Your task to perform on an android device: Go to Reddit.com Image 0: 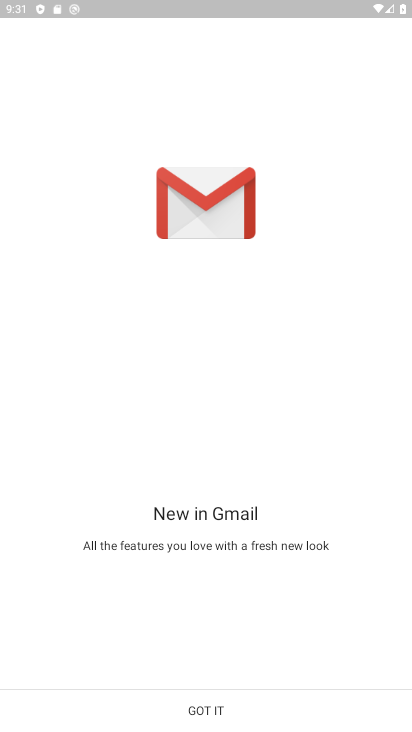
Step 0: press home button
Your task to perform on an android device: Go to Reddit.com Image 1: 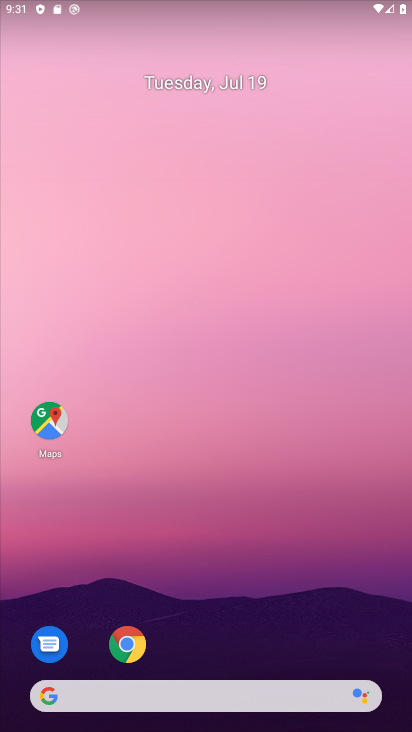
Step 1: click (128, 648)
Your task to perform on an android device: Go to Reddit.com Image 2: 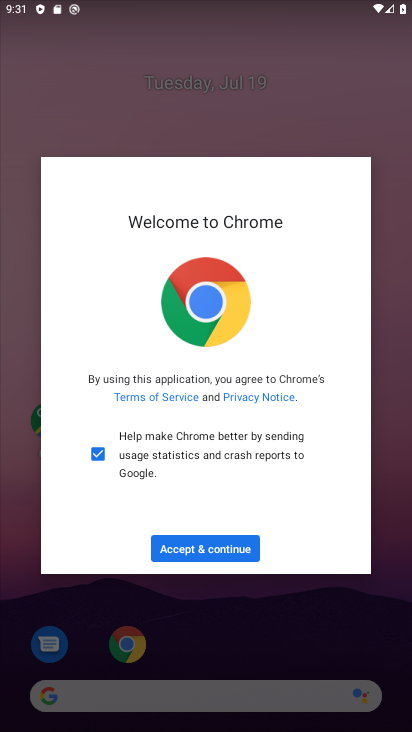
Step 2: click (209, 546)
Your task to perform on an android device: Go to Reddit.com Image 3: 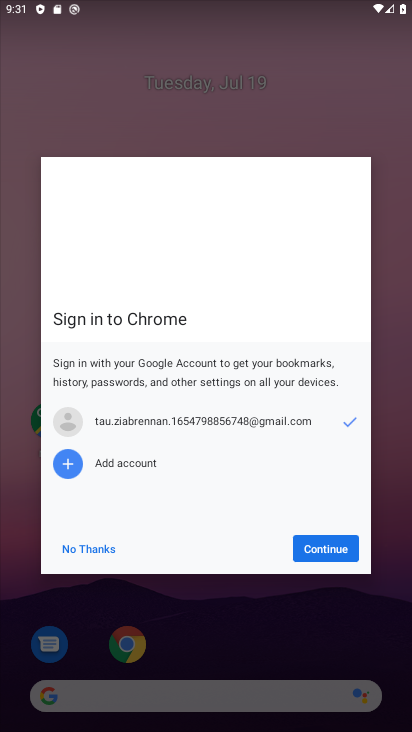
Step 3: click (314, 552)
Your task to perform on an android device: Go to Reddit.com Image 4: 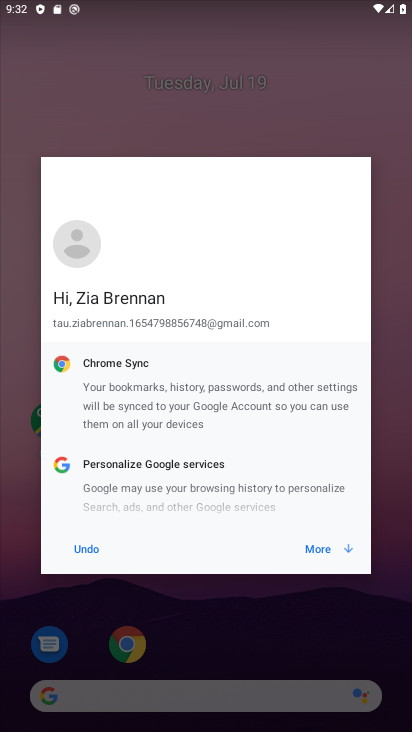
Step 4: click (328, 553)
Your task to perform on an android device: Go to Reddit.com Image 5: 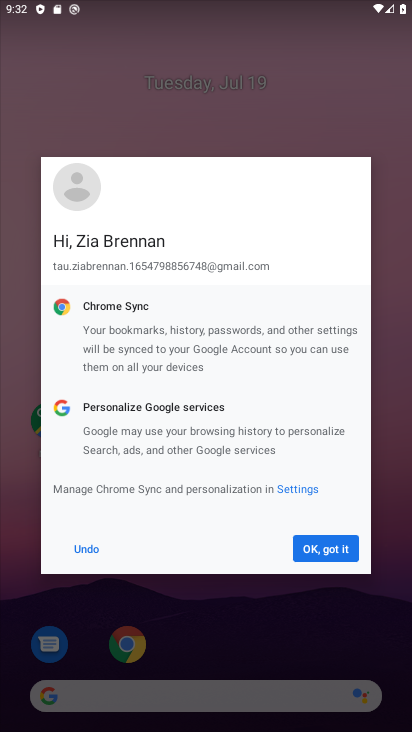
Step 5: click (328, 553)
Your task to perform on an android device: Go to Reddit.com Image 6: 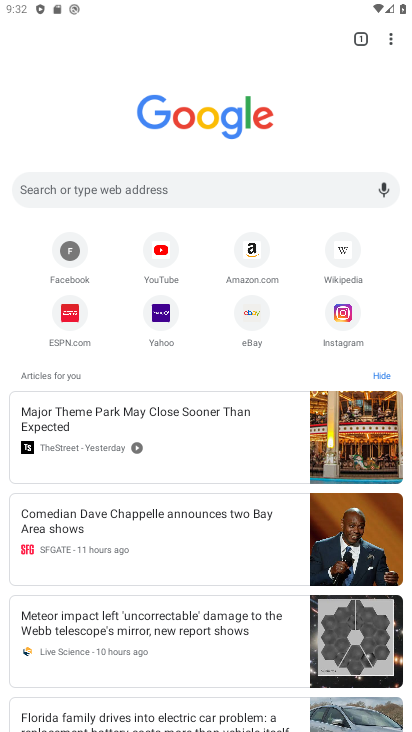
Step 6: click (273, 199)
Your task to perform on an android device: Go to Reddit.com Image 7: 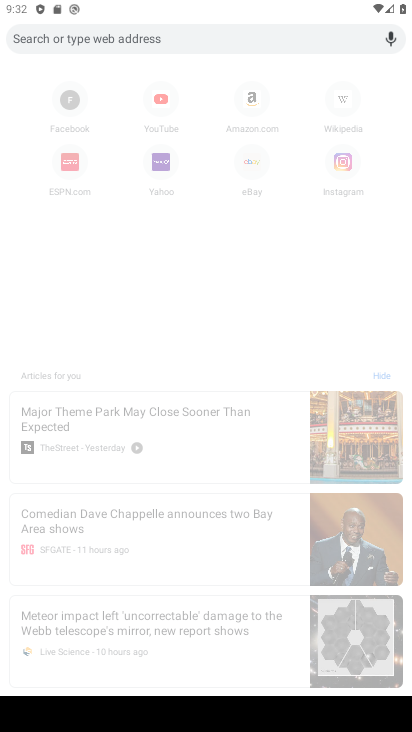
Step 7: type "reddit.com"
Your task to perform on an android device: Go to Reddit.com Image 8: 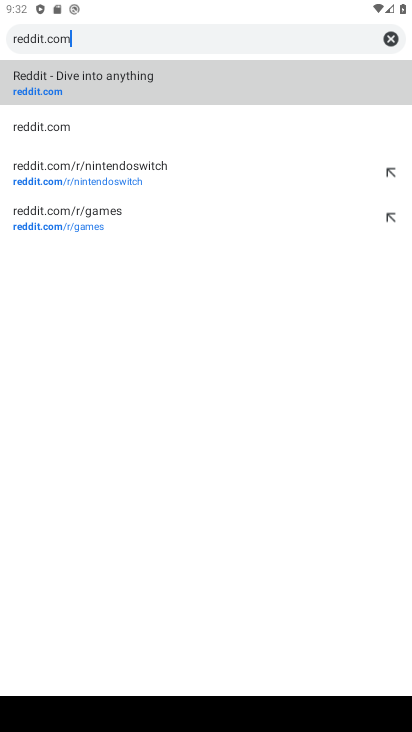
Step 8: click (213, 71)
Your task to perform on an android device: Go to Reddit.com Image 9: 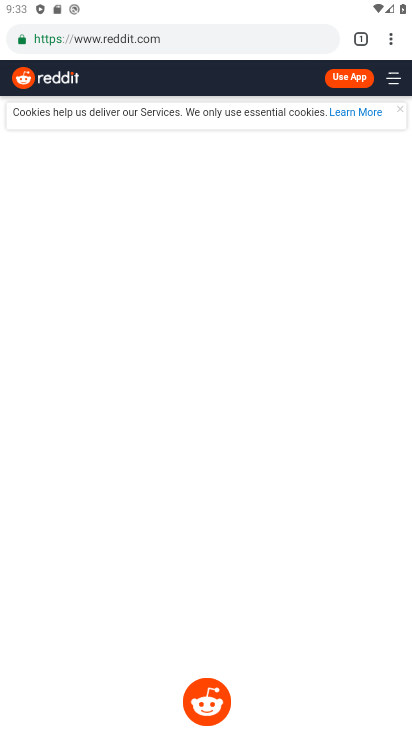
Step 9: task complete